Your task to perform on an android device: toggle airplane mode Image 0: 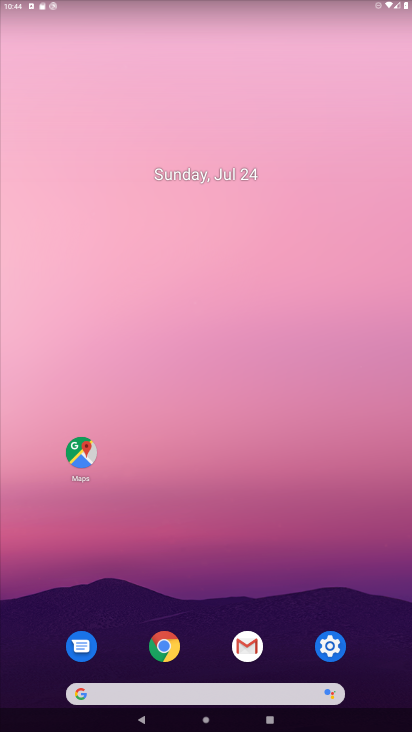
Step 0: click (336, 648)
Your task to perform on an android device: toggle airplane mode Image 1: 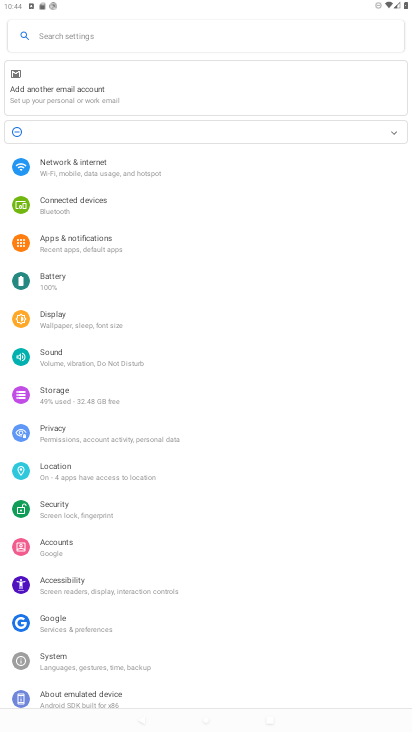
Step 1: click (80, 158)
Your task to perform on an android device: toggle airplane mode Image 2: 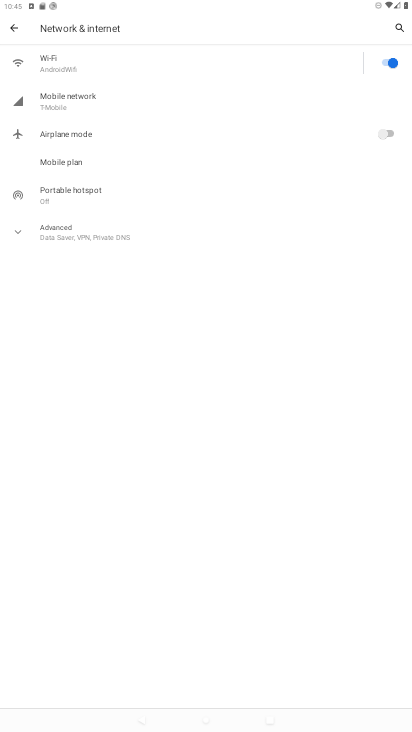
Step 2: task complete